Your task to perform on an android device: Check my email inbox Image 0: 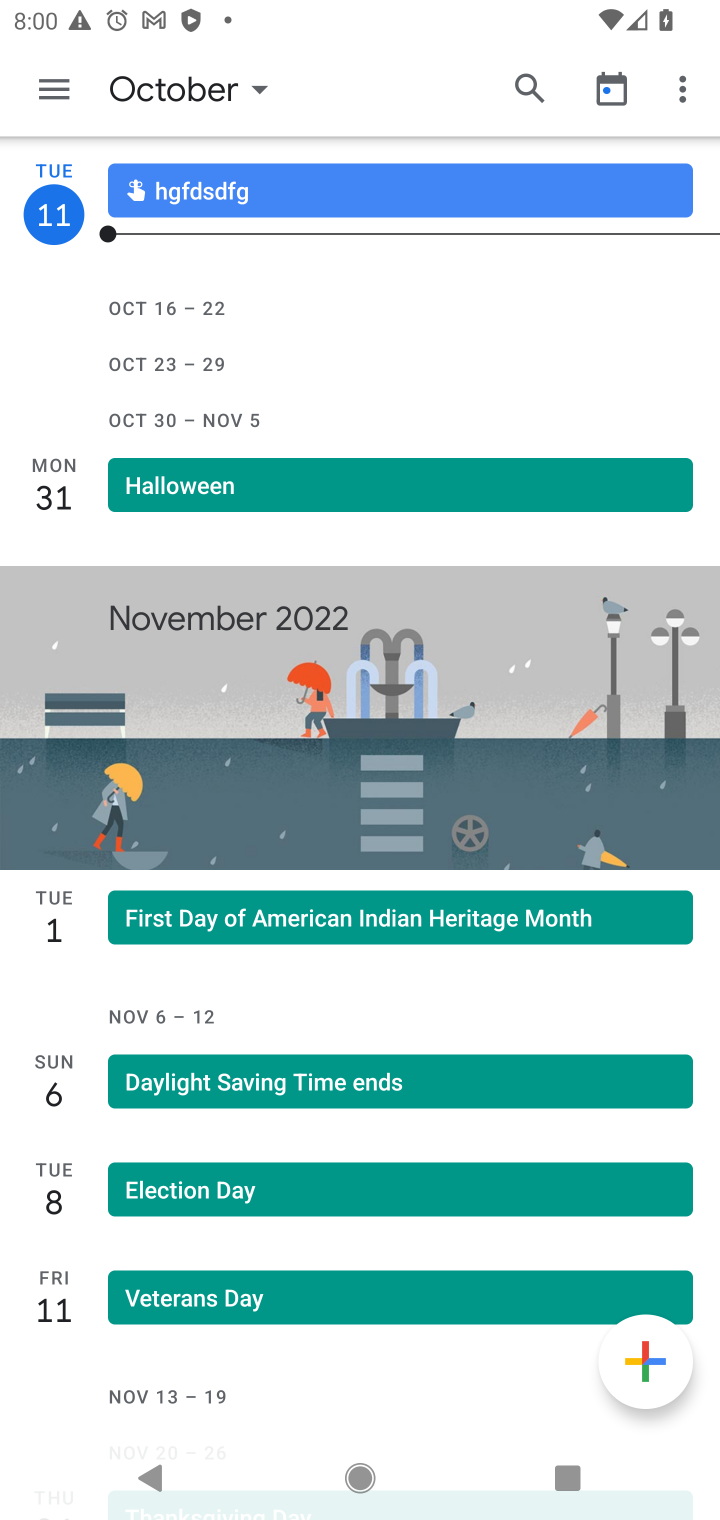
Step 0: press home button
Your task to perform on an android device: Check my email inbox Image 1: 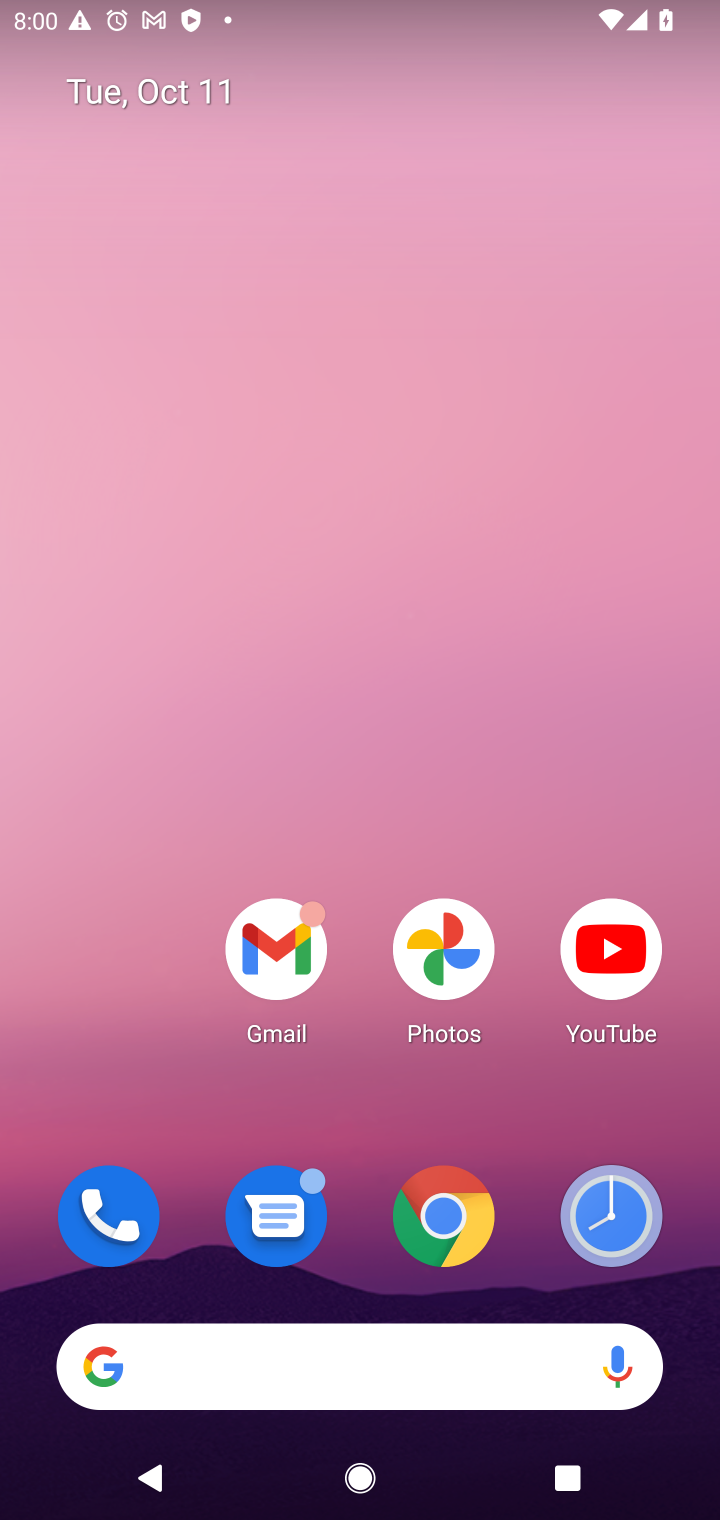
Step 1: click (292, 990)
Your task to perform on an android device: Check my email inbox Image 2: 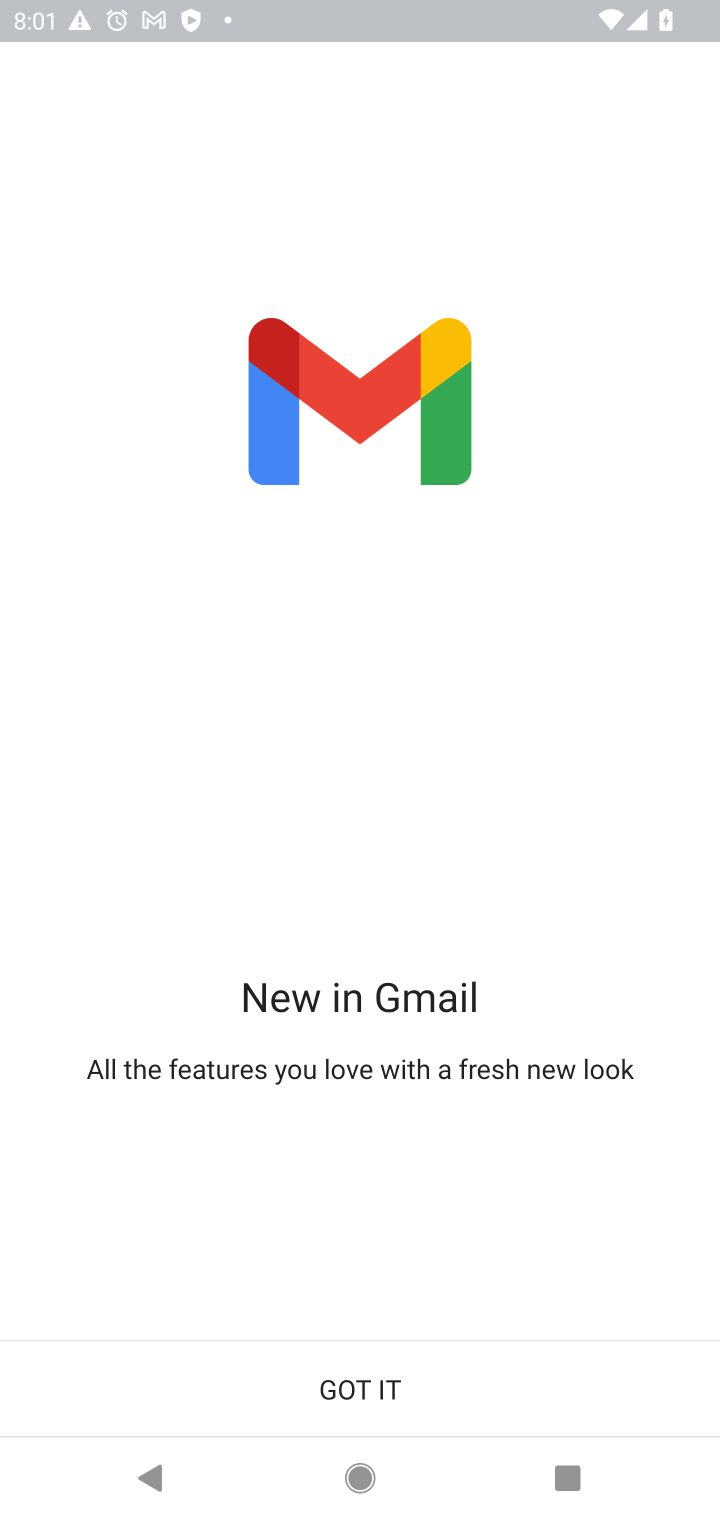
Step 2: click (328, 1415)
Your task to perform on an android device: Check my email inbox Image 3: 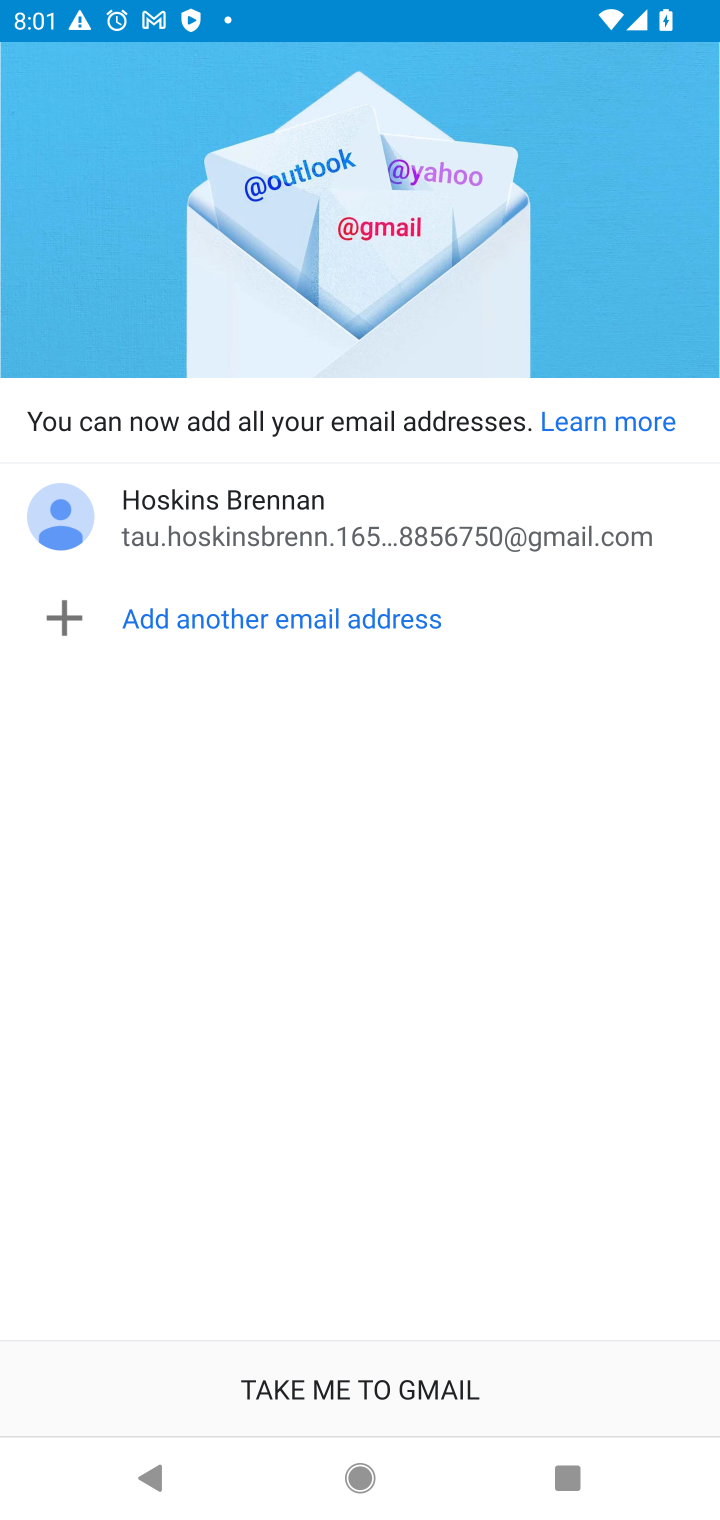
Step 3: click (374, 1399)
Your task to perform on an android device: Check my email inbox Image 4: 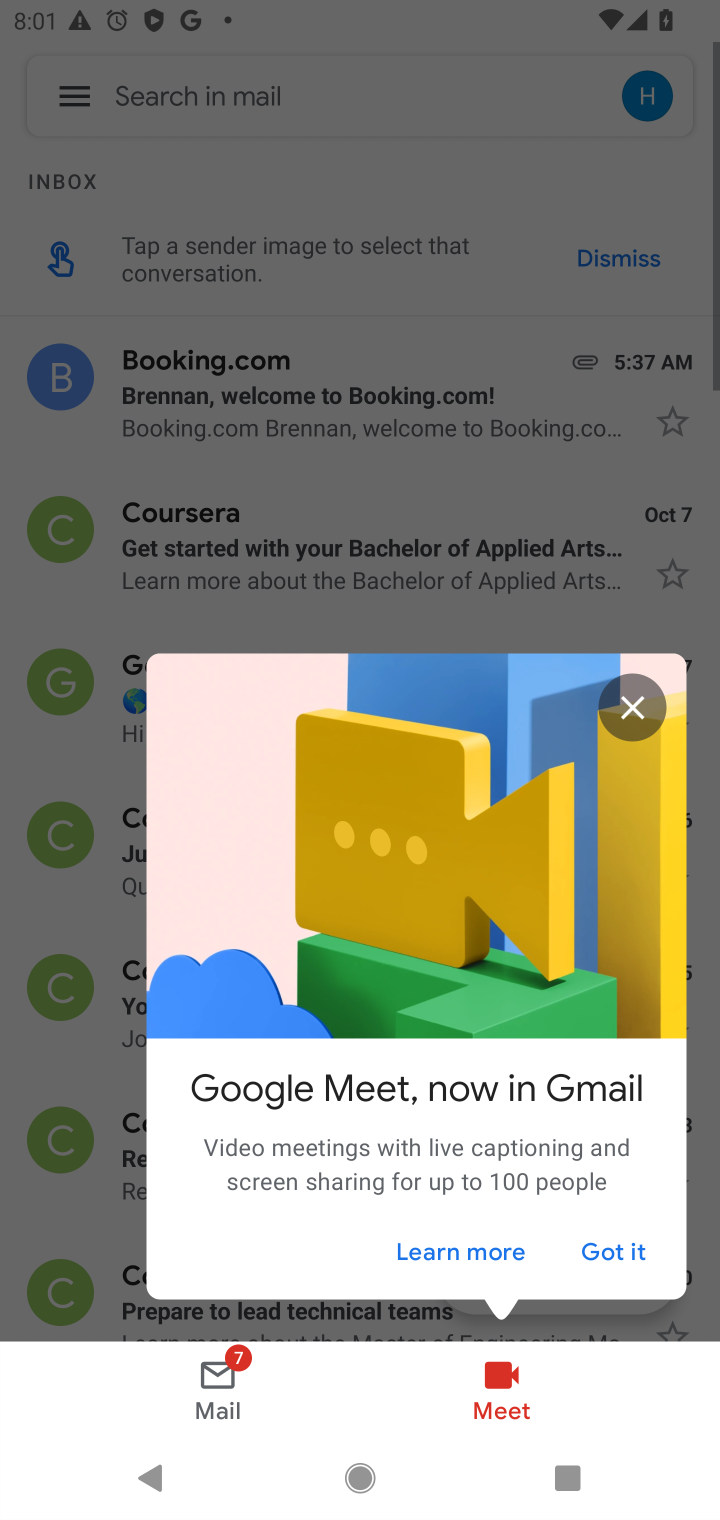
Step 4: click (589, 1255)
Your task to perform on an android device: Check my email inbox Image 5: 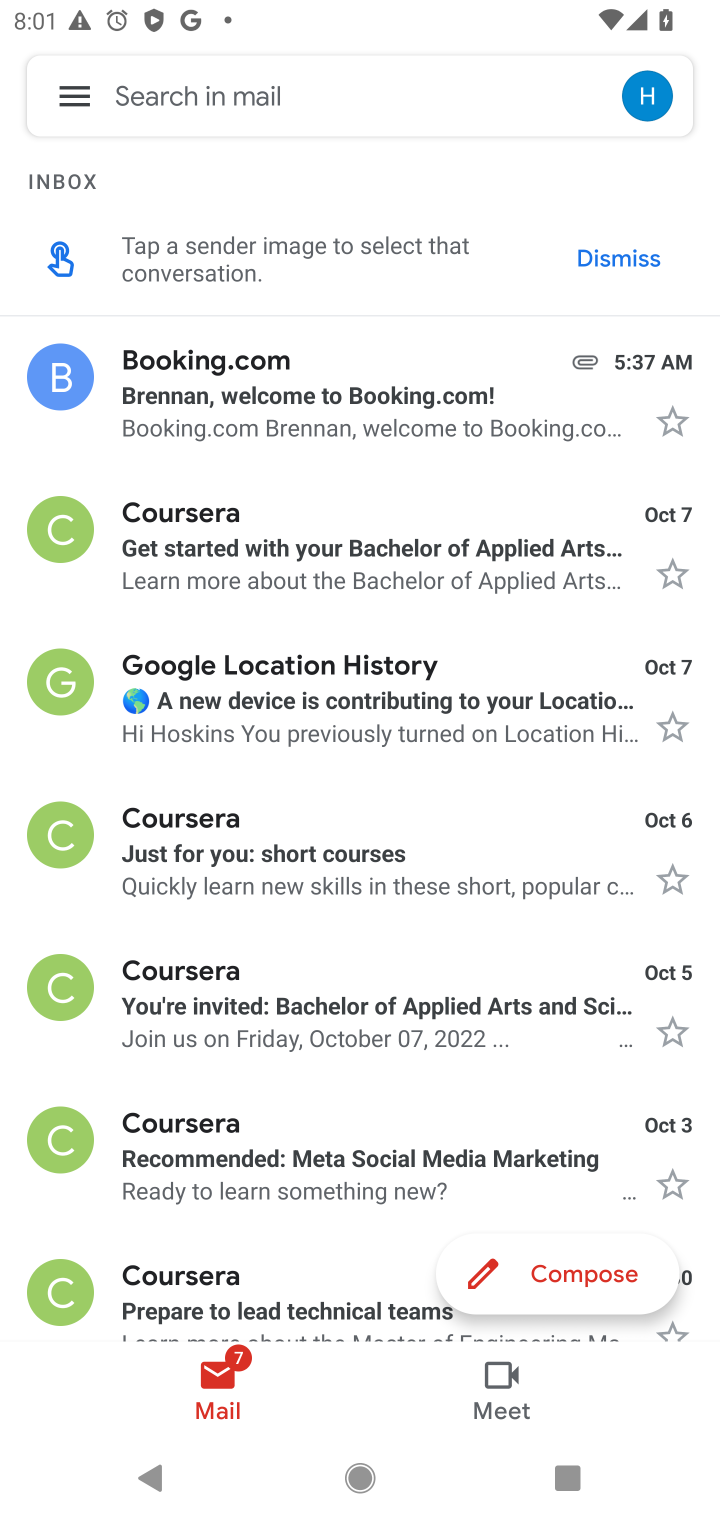
Step 5: task complete